Your task to perform on an android device: What's on my calendar tomorrow? Image 0: 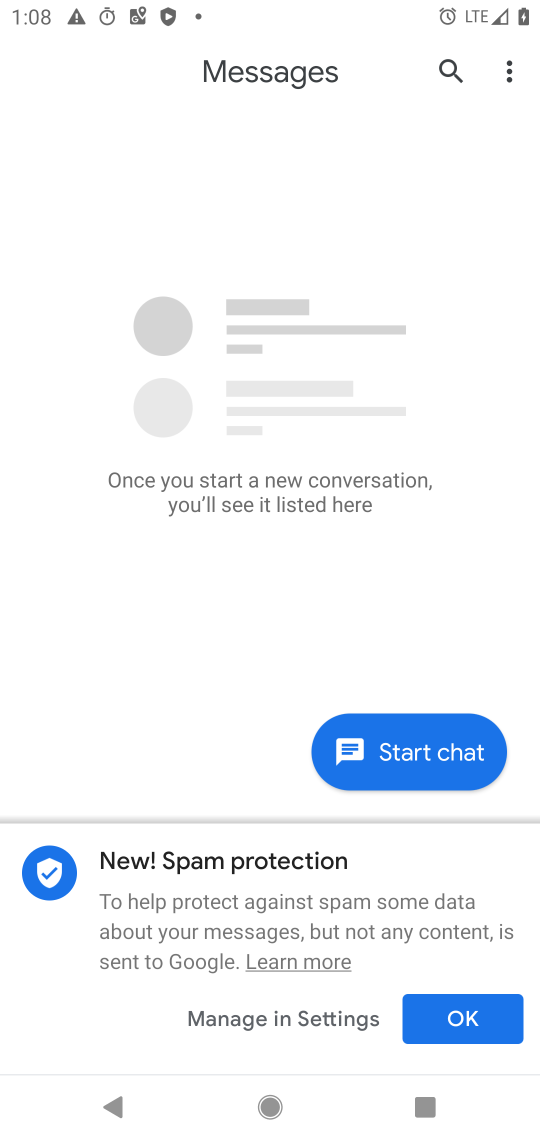
Step 0: press home button
Your task to perform on an android device: What's on my calendar tomorrow? Image 1: 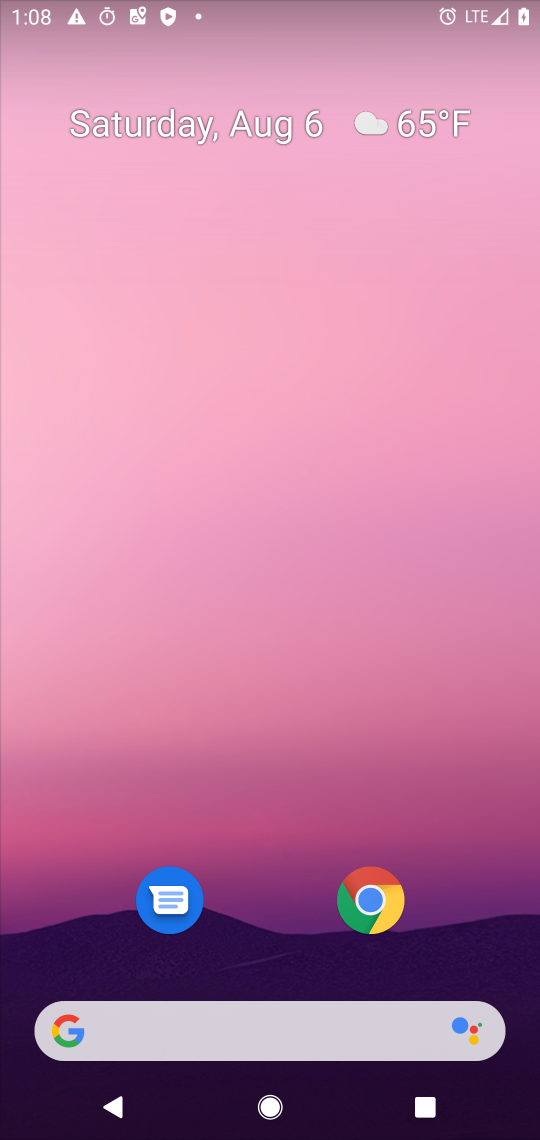
Step 1: drag from (276, 903) to (278, 155)
Your task to perform on an android device: What's on my calendar tomorrow? Image 2: 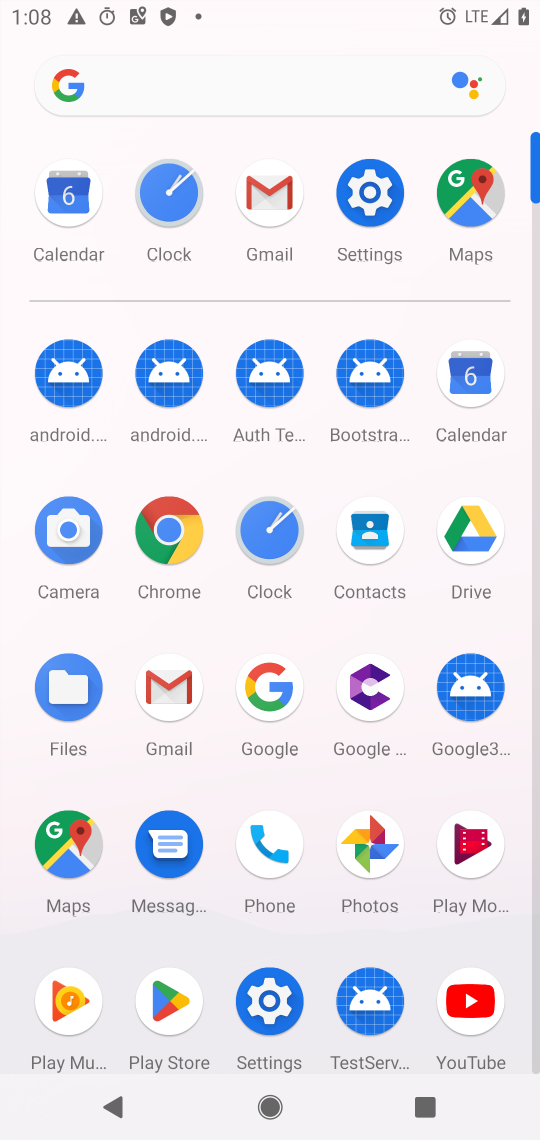
Step 2: click (458, 396)
Your task to perform on an android device: What's on my calendar tomorrow? Image 3: 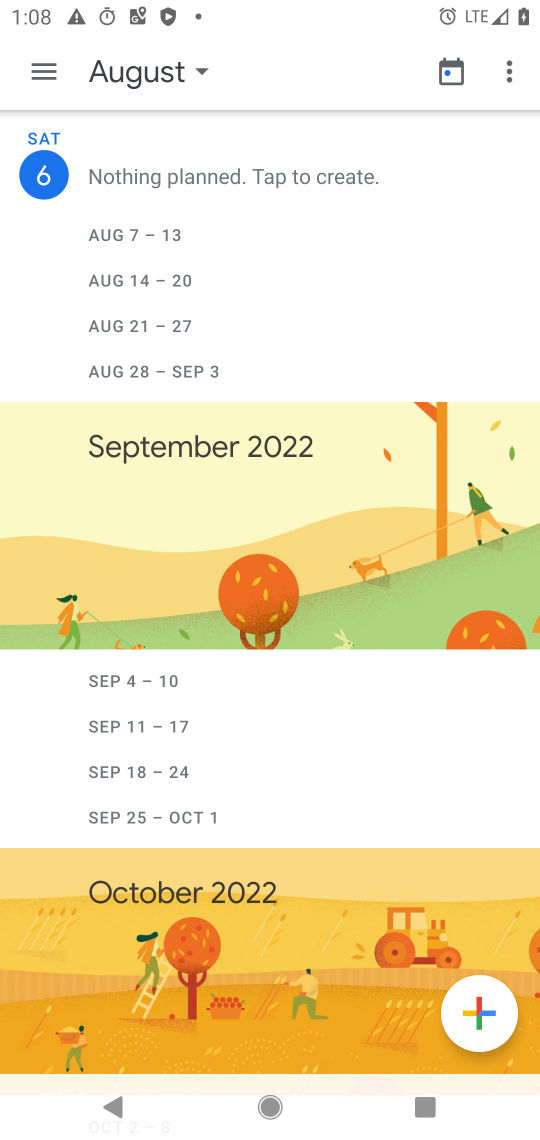
Step 3: click (192, 66)
Your task to perform on an android device: What's on my calendar tomorrow? Image 4: 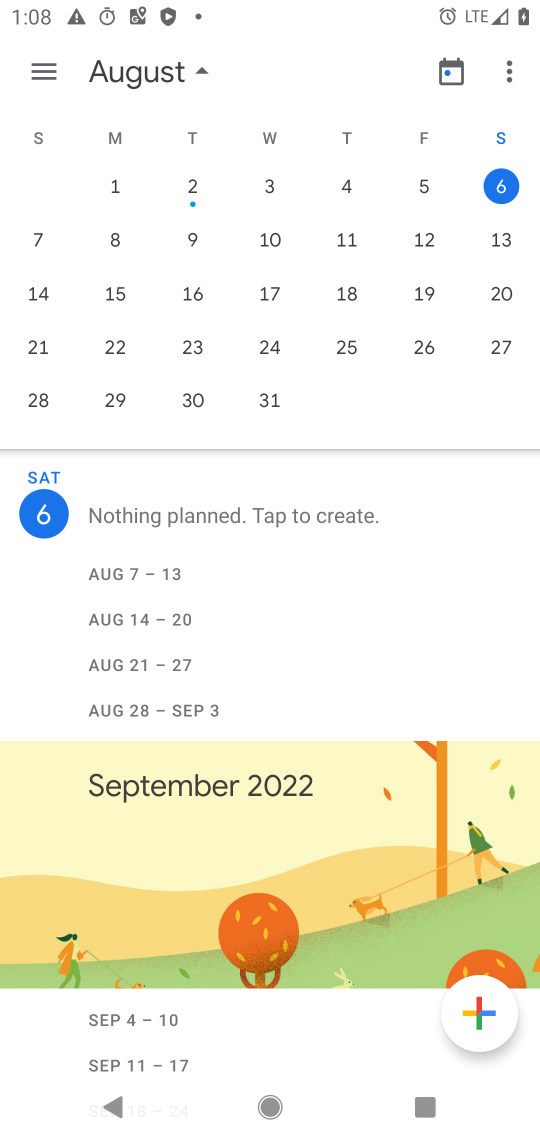
Step 4: click (38, 233)
Your task to perform on an android device: What's on my calendar tomorrow? Image 5: 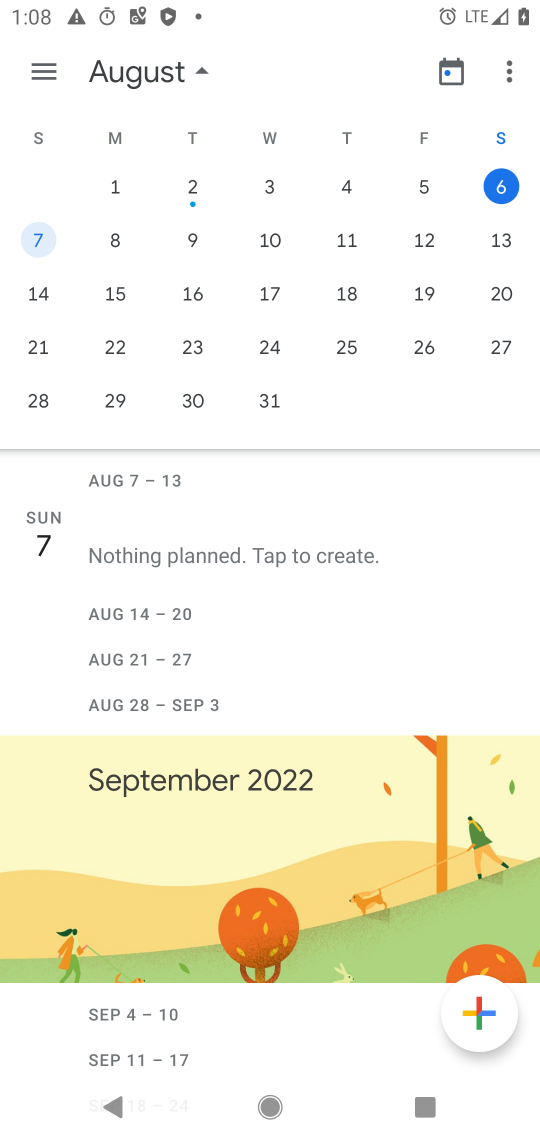
Step 5: click (35, 240)
Your task to perform on an android device: What's on my calendar tomorrow? Image 6: 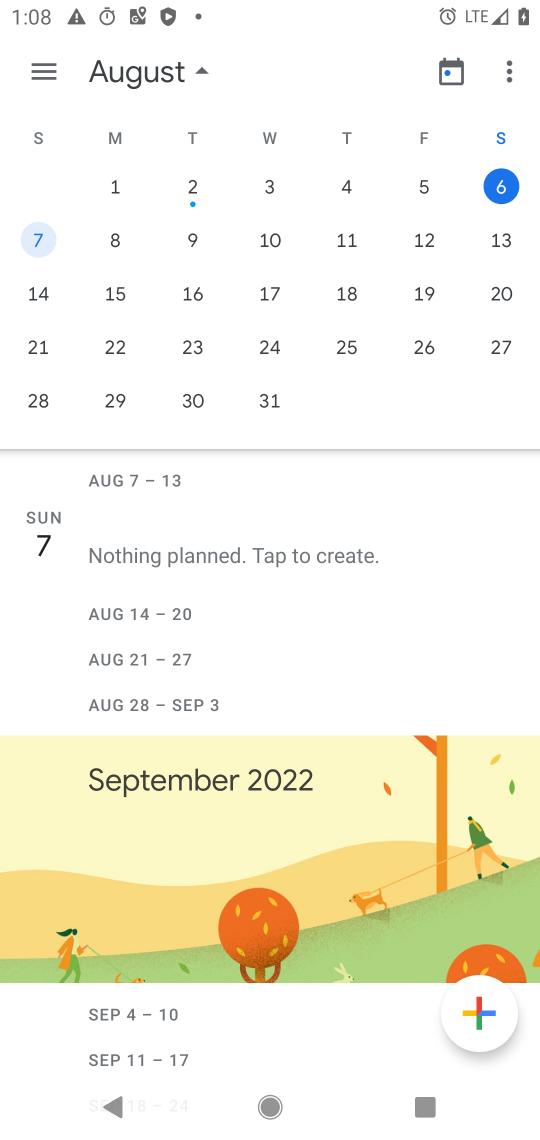
Step 6: task complete